Your task to perform on an android device: Search for the best selling jewelry on Etsy. Image 0: 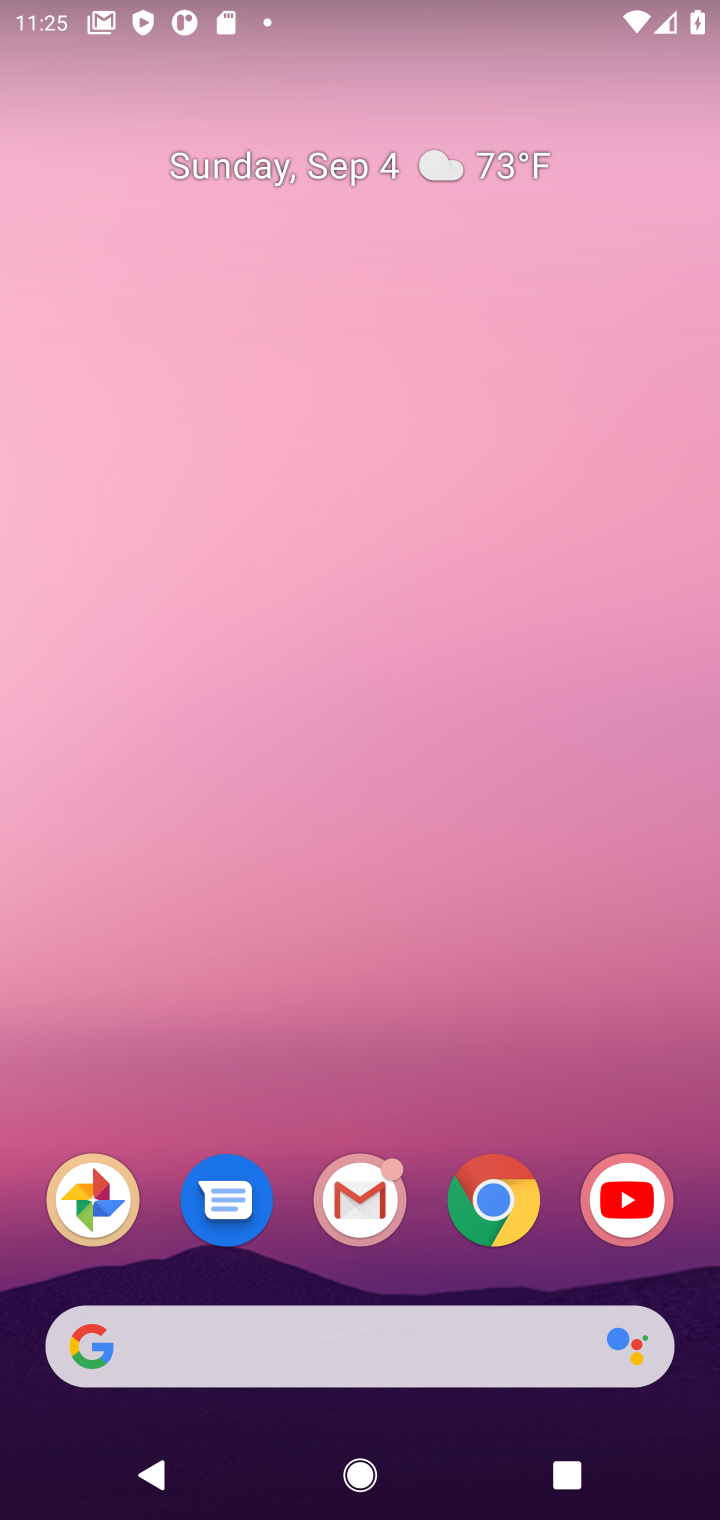
Step 0: click (511, 1216)
Your task to perform on an android device: Search for the best selling jewelry on Etsy. Image 1: 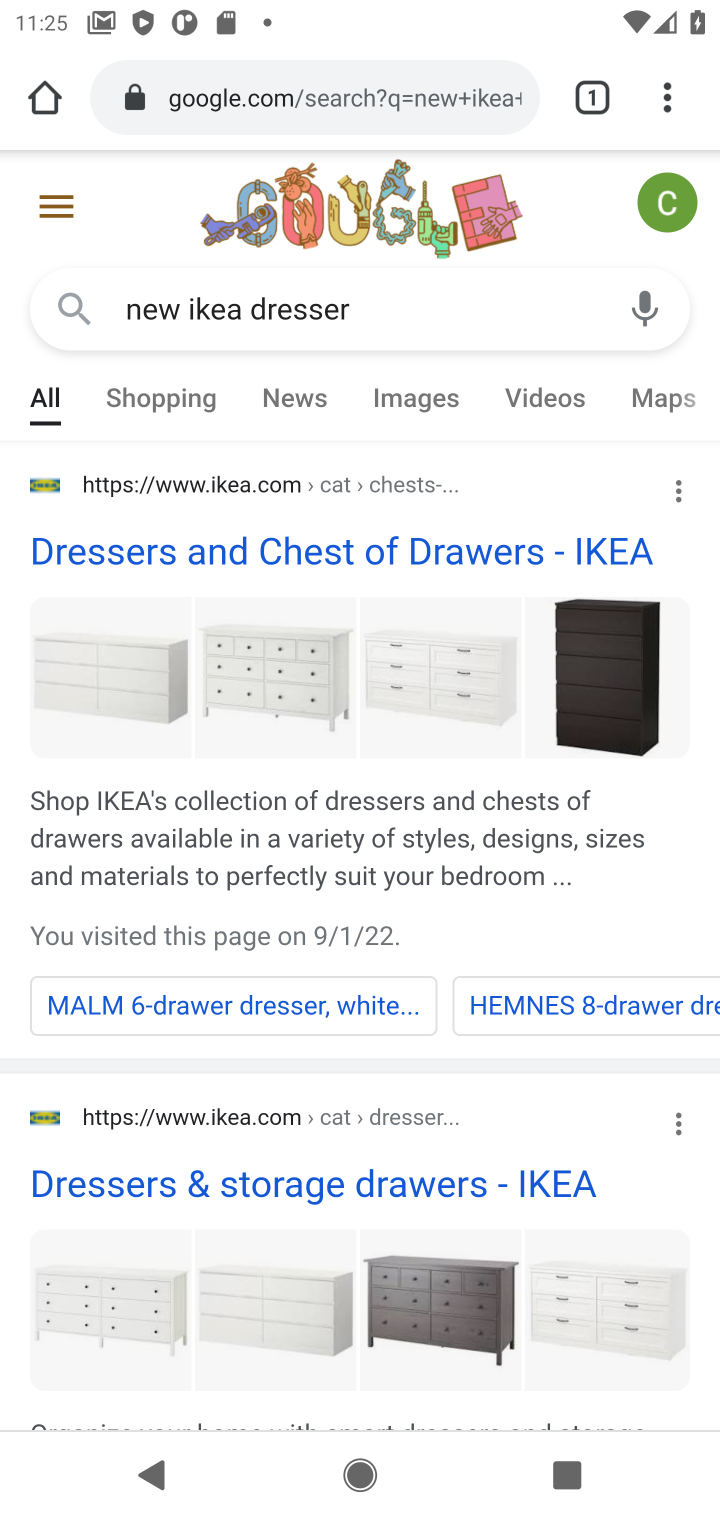
Step 1: click (469, 112)
Your task to perform on an android device: Search for the best selling jewelry on Etsy. Image 2: 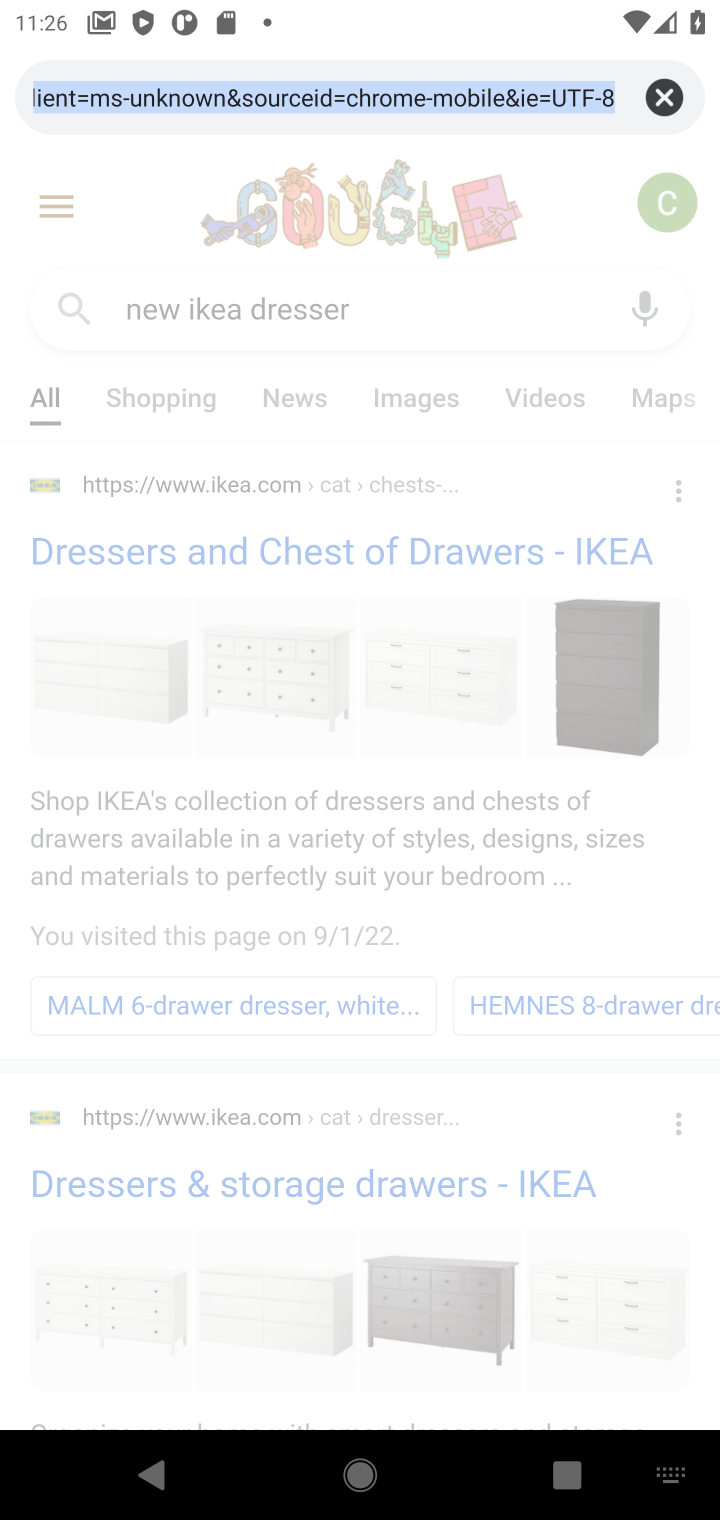
Step 2: type "etsy"
Your task to perform on an android device: Search for the best selling jewelry on Etsy. Image 3: 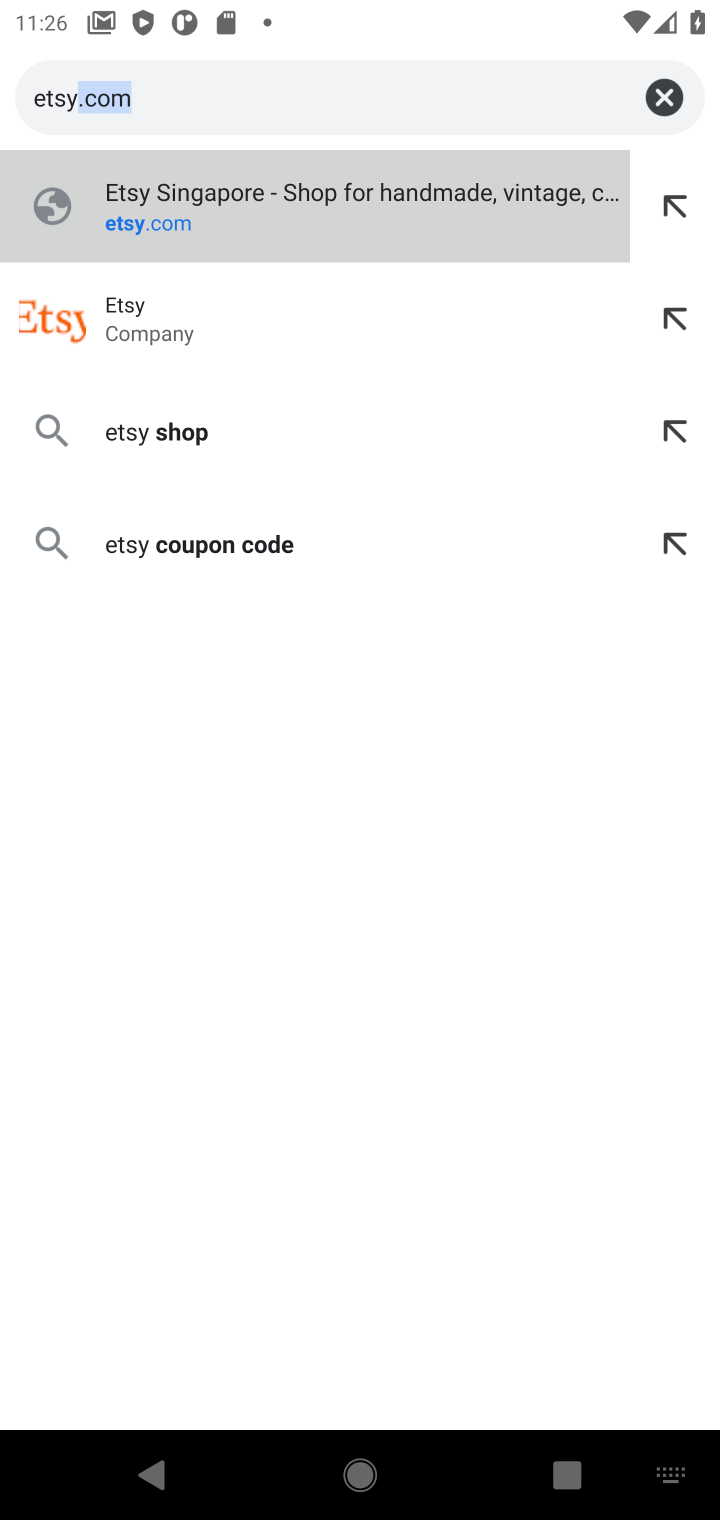
Step 3: click (53, 331)
Your task to perform on an android device: Search for the best selling jewelry on Etsy. Image 4: 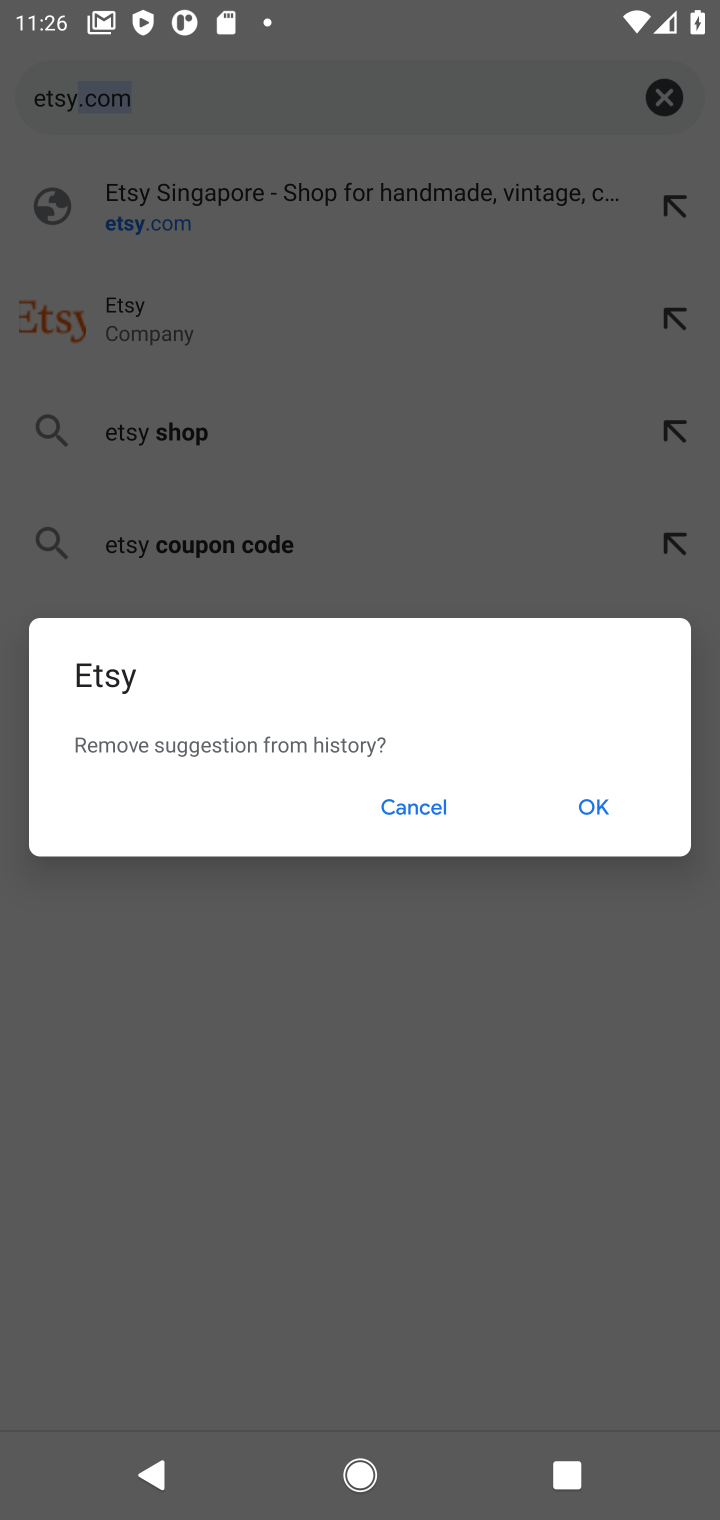
Step 4: click (401, 801)
Your task to perform on an android device: Search for the best selling jewelry on Etsy. Image 5: 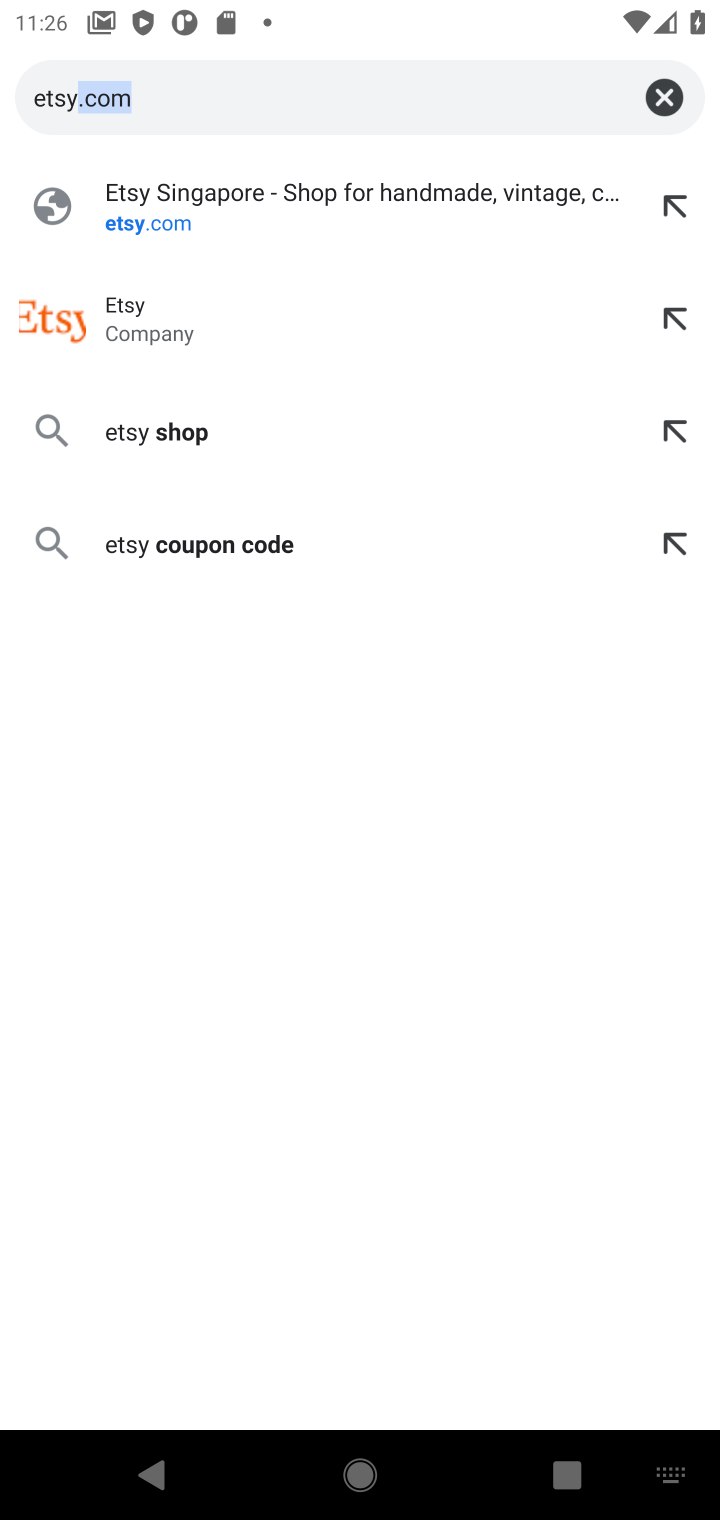
Step 5: click (67, 330)
Your task to perform on an android device: Search for the best selling jewelry on Etsy. Image 6: 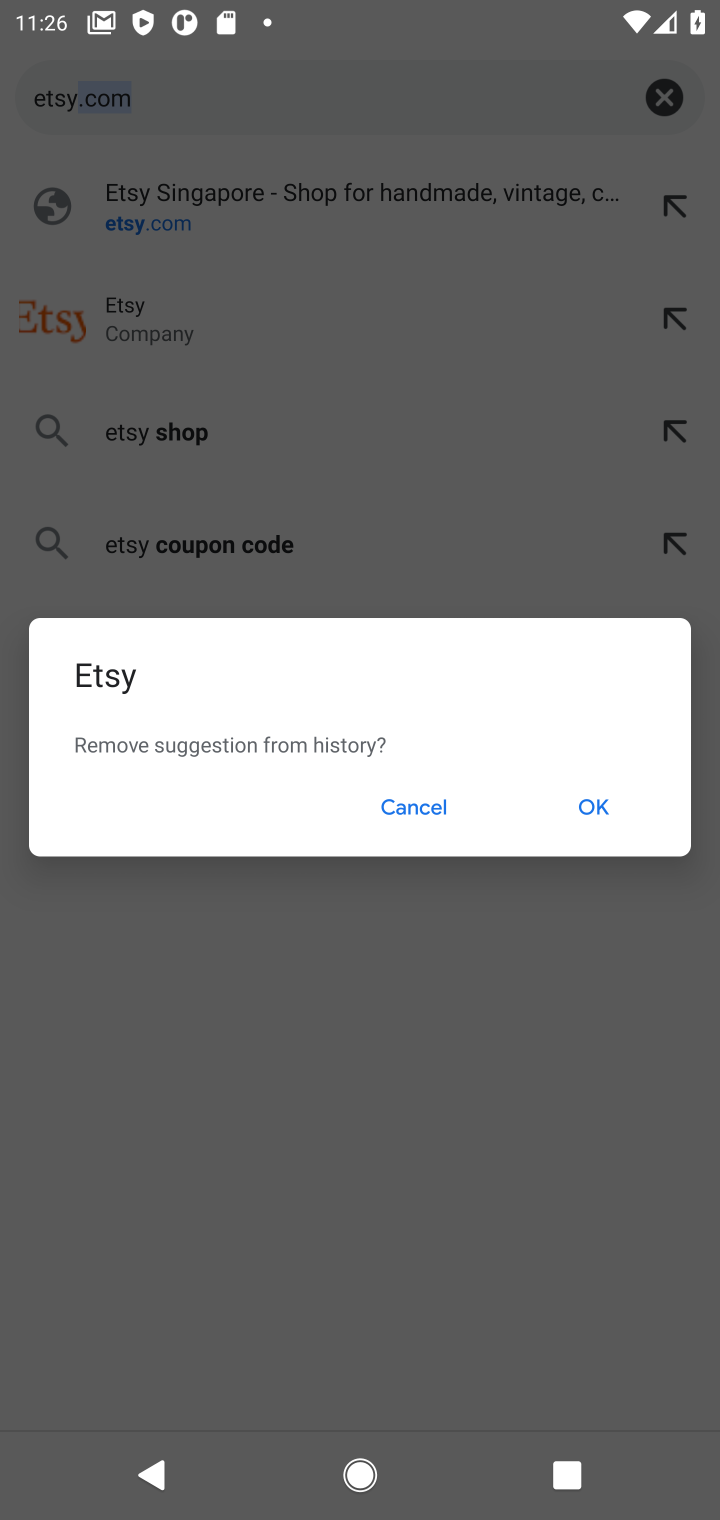
Step 6: click (424, 795)
Your task to perform on an android device: Search for the best selling jewelry on Etsy. Image 7: 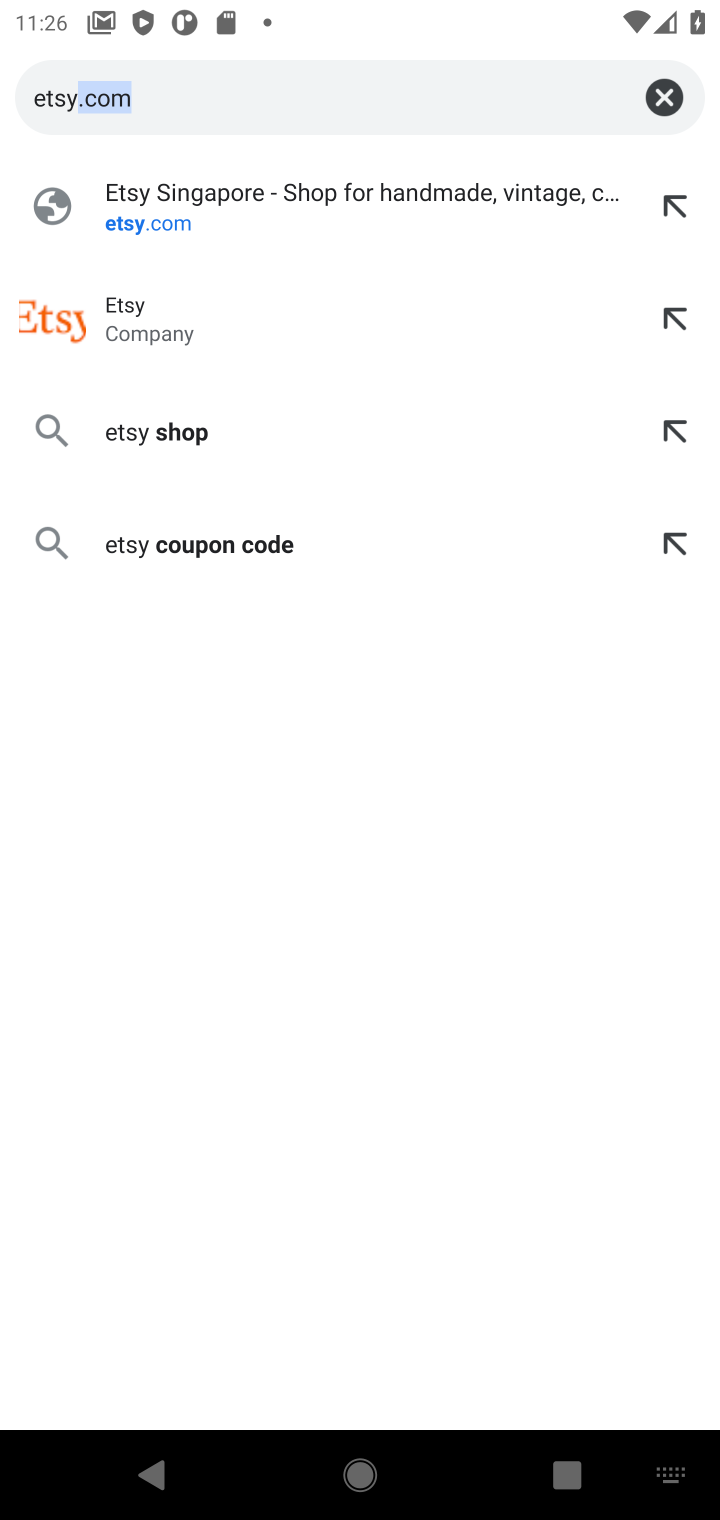
Step 7: click (689, 324)
Your task to perform on an android device: Search for the best selling jewelry on Etsy. Image 8: 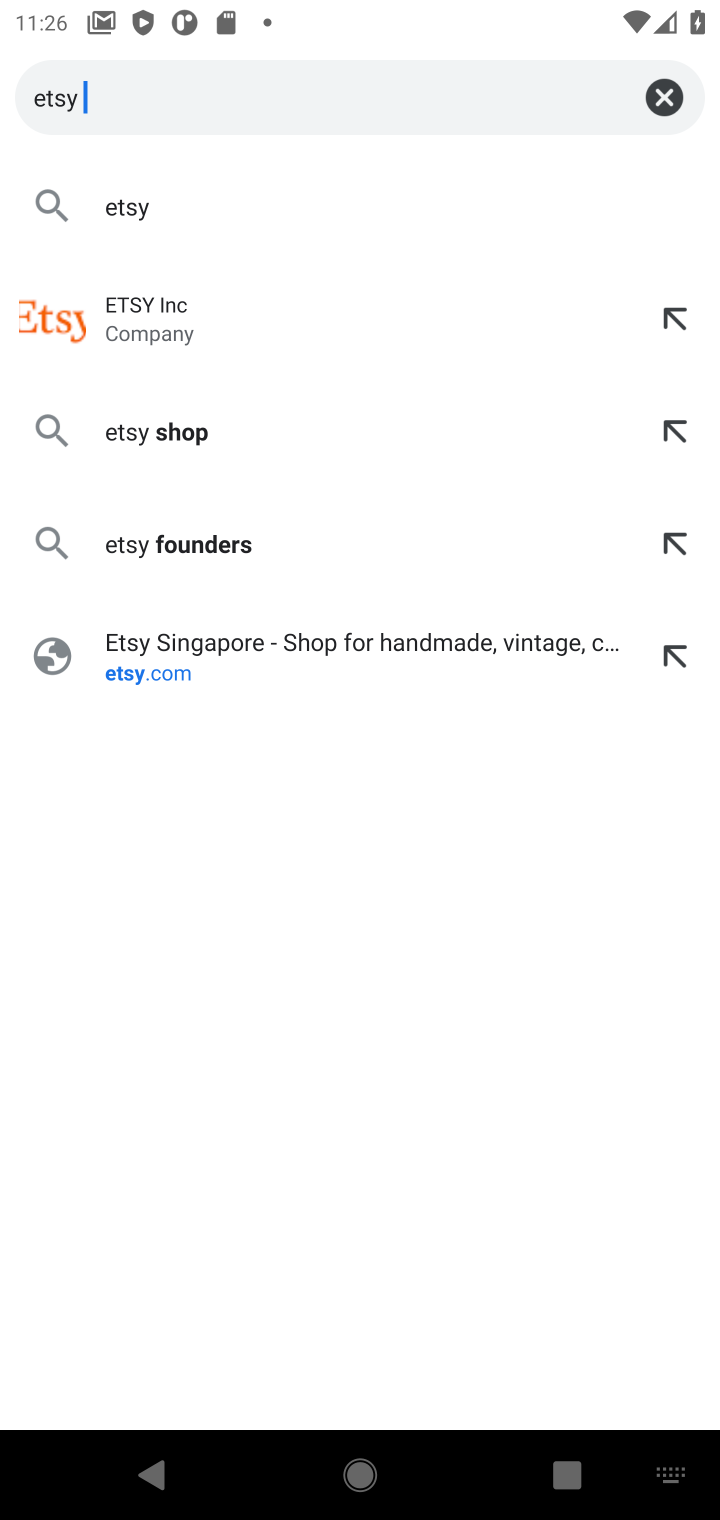
Step 8: click (331, 309)
Your task to perform on an android device: Search for the best selling jewelry on Etsy. Image 9: 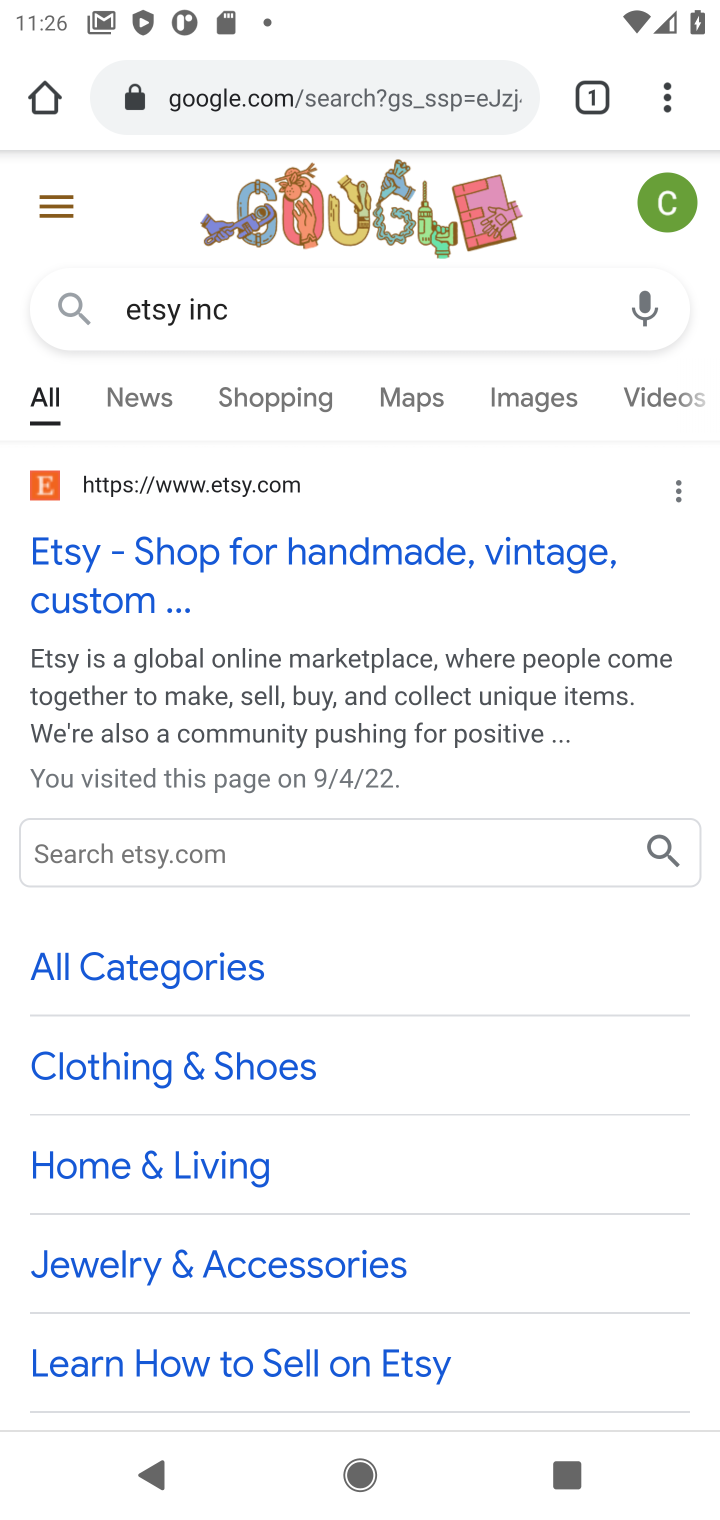
Step 9: click (172, 578)
Your task to perform on an android device: Search for the best selling jewelry on Etsy. Image 10: 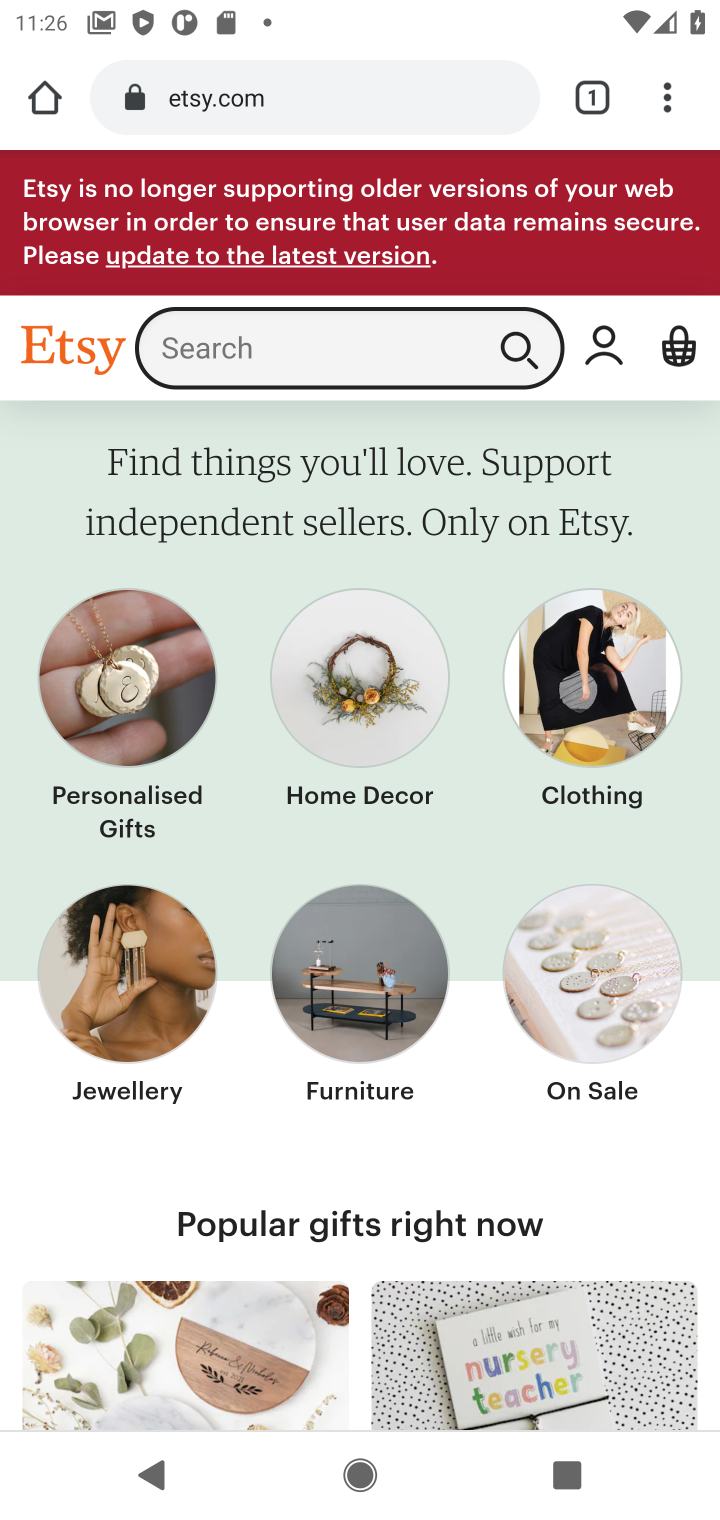
Step 10: click (453, 337)
Your task to perform on an android device: Search for the best selling jewelry on Etsy. Image 11: 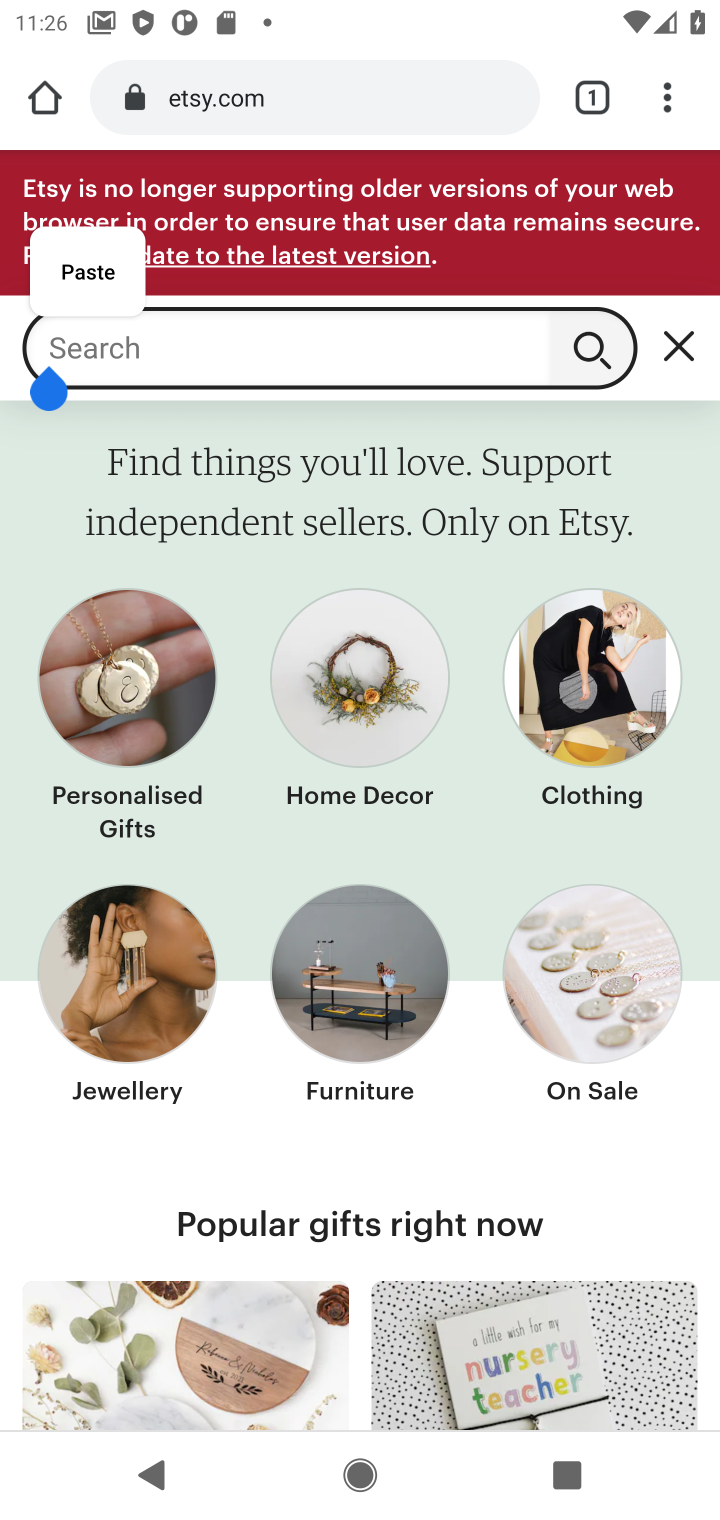
Step 11: click (584, 353)
Your task to perform on an android device: Search for the best selling jewelry on Etsy. Image 12: 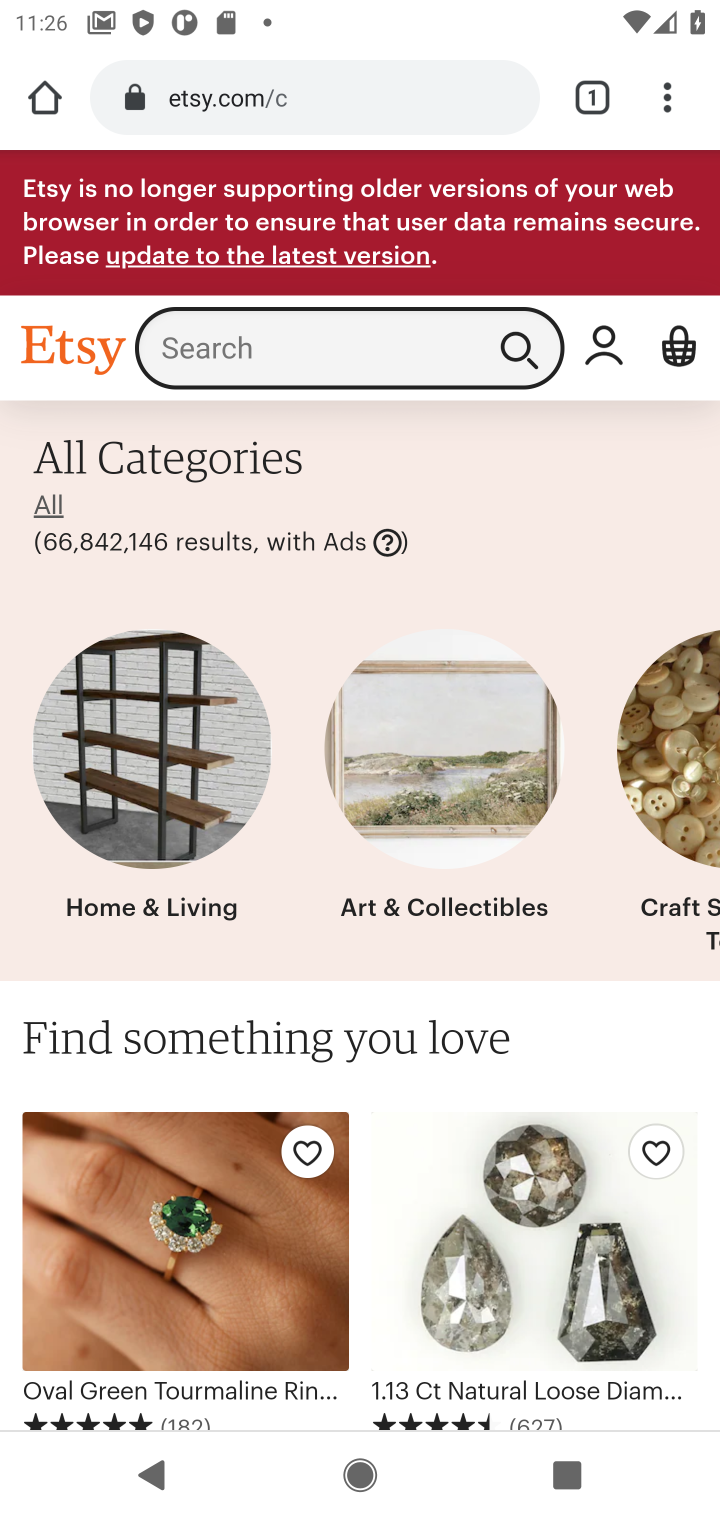
Step 12: click (393, 341)
Your task to perform on an android device: Search for the best selling jewelry on Etsy. Image 13: 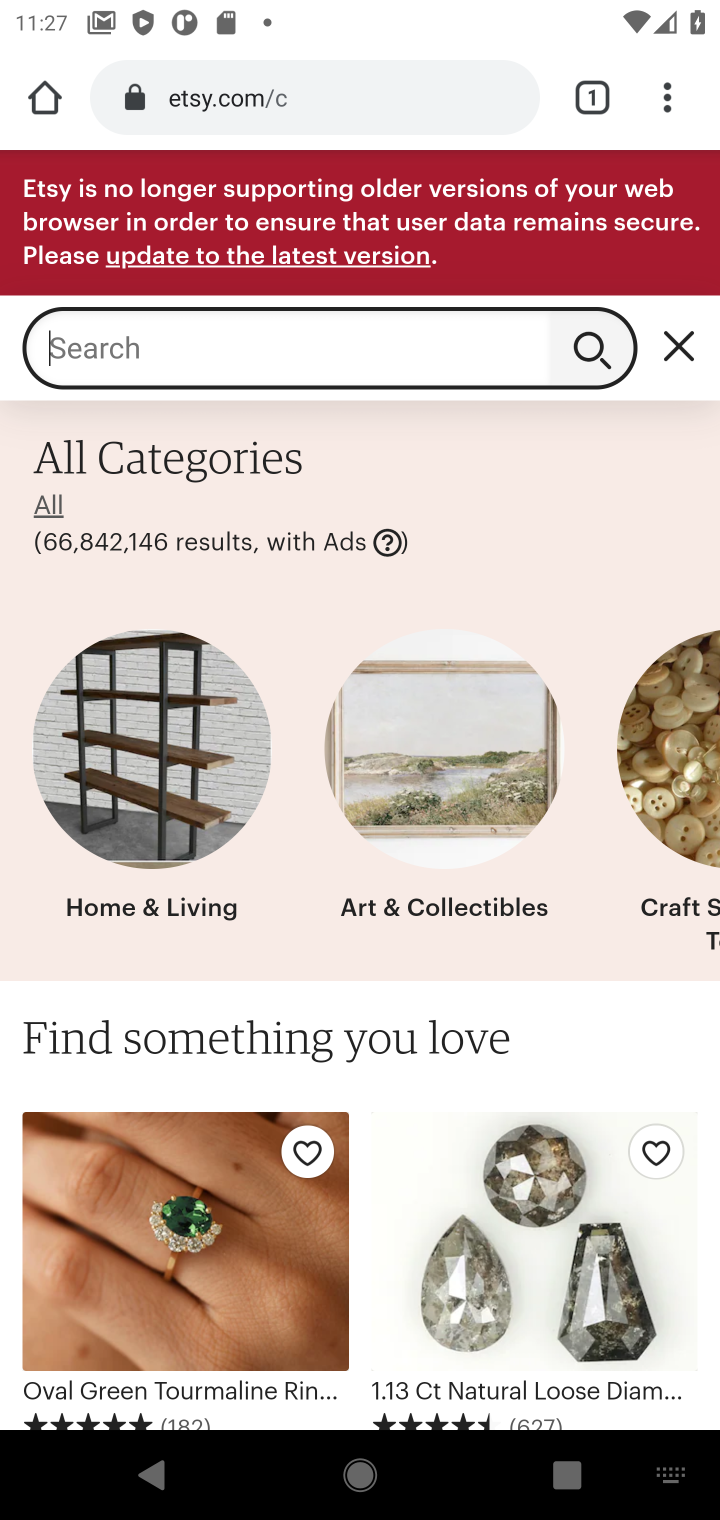
Step 13: type "best selling jewelry"
Your task to perform on an android device: Search for the best selling jewelry on Etsy. Image 14: 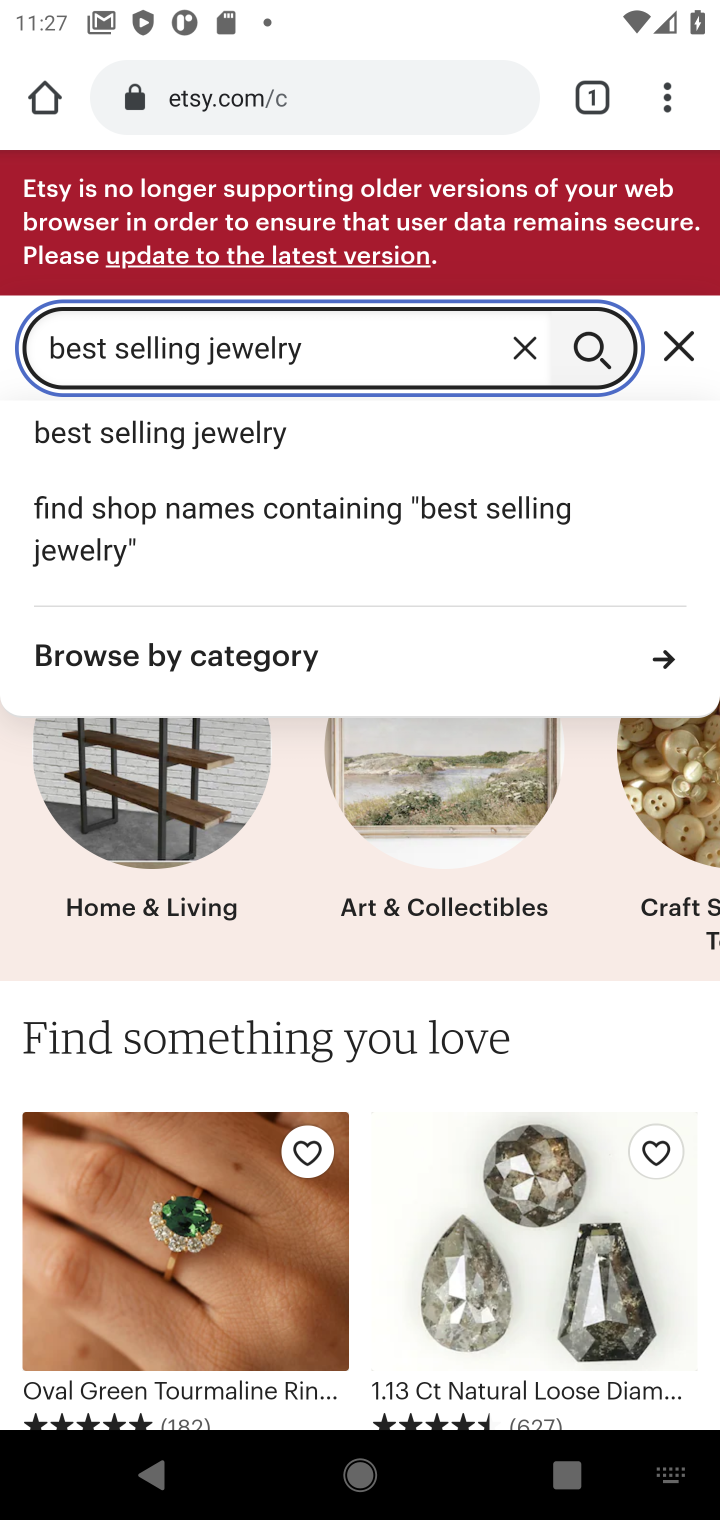
Step 14: click (168, 432)
Your task to perform on an android device: Search for the best selling jewelry on Etsy. Image 15: 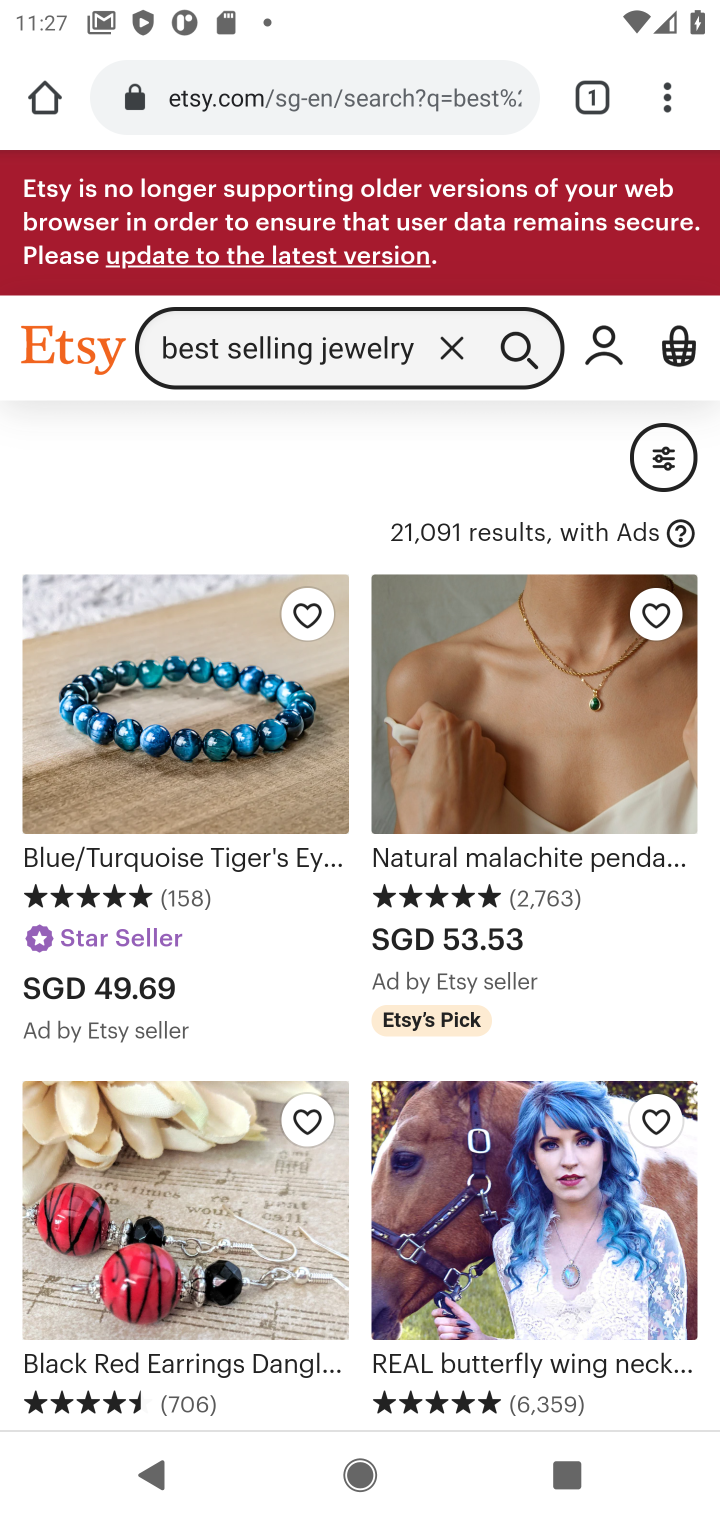
Step 15: task complete